Your task to perform on an android device: turn on showing notifications on the lock screen Image 0: 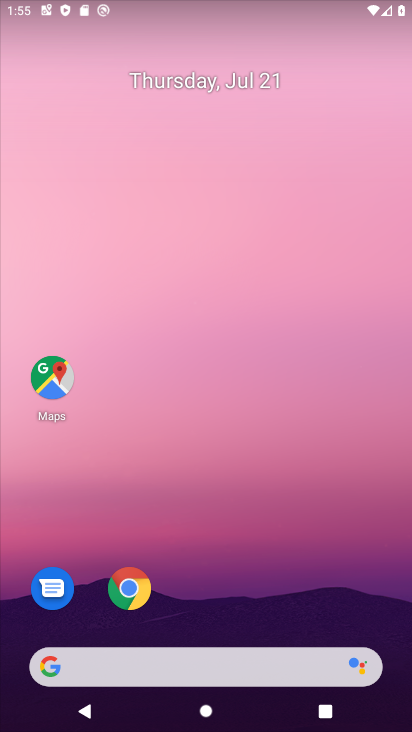
Step 0: drag from (243, 630) to (193, 109)
Your task to perform on an android device: turn on showing notifications on the lock screen Image 1: 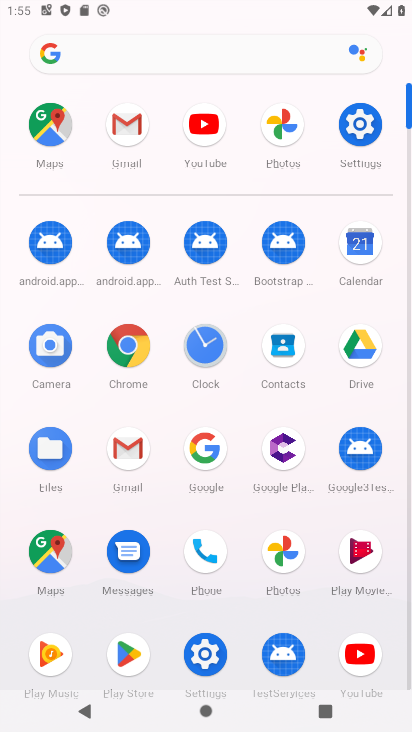
Step 1: click (360, 115)
Your task to perform on an android device: turn on showing notifications on the lock screen Image 2: 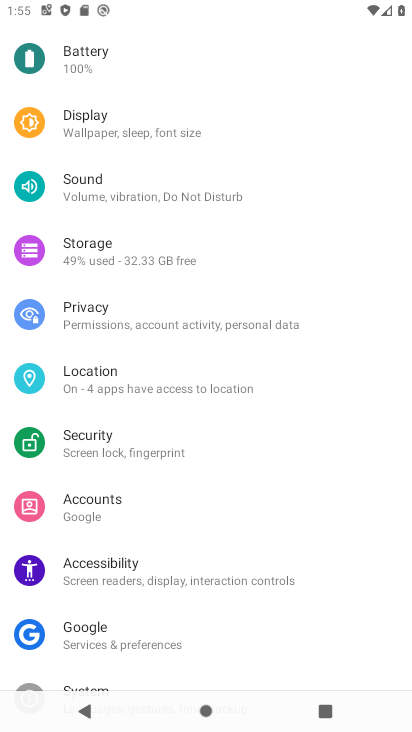
Step 2: drag from (167, 160) to (140, 655)
Your task to perform on an android device: turn on showing notifications on the lock screen Image 3: 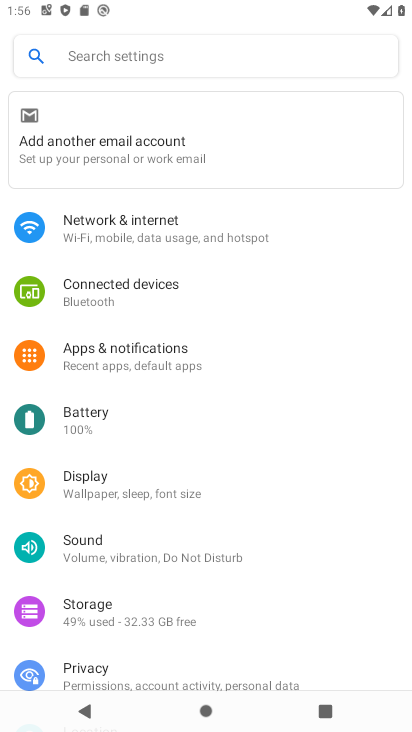
Step 3: click (115, 355)
Your task to perform on an android device: turn on showing notifications on the lock screen Image 4: 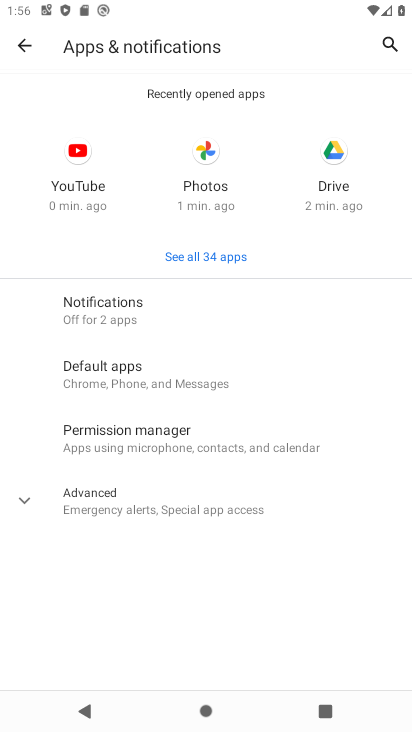
Step 4: click (109, 314)
Your task to perform on an android device: turn on showing notifications on the lock screen Image 5: 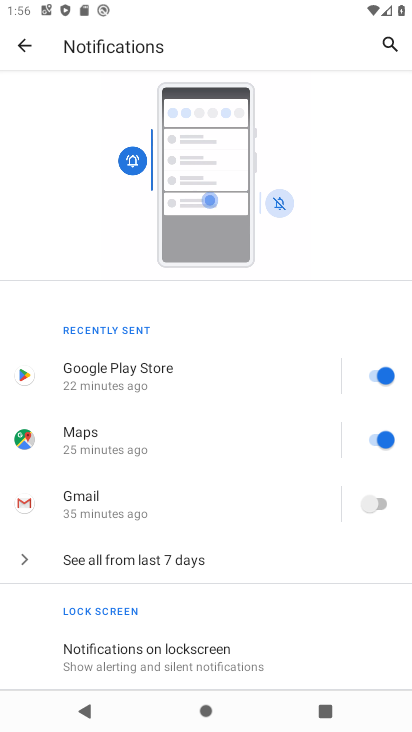
Step 5: click (214, 640)
Your task to perform on an android device: turn on showing notifications on the lock screen Image 6: 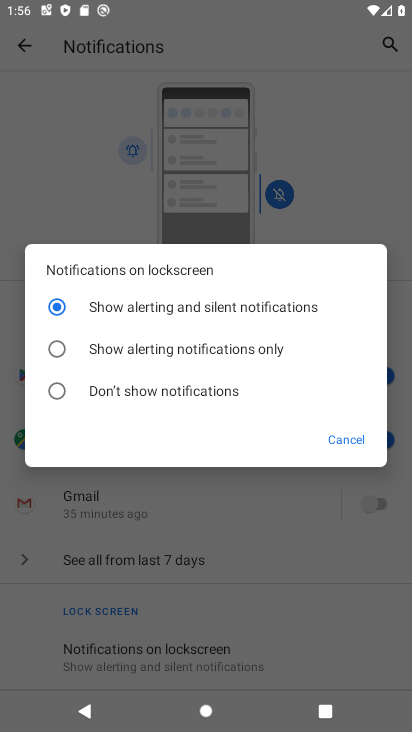
Step 6: click (55, 297)
Your task to perform on an android device: turn on showing notifications on the lock screen Image 7: 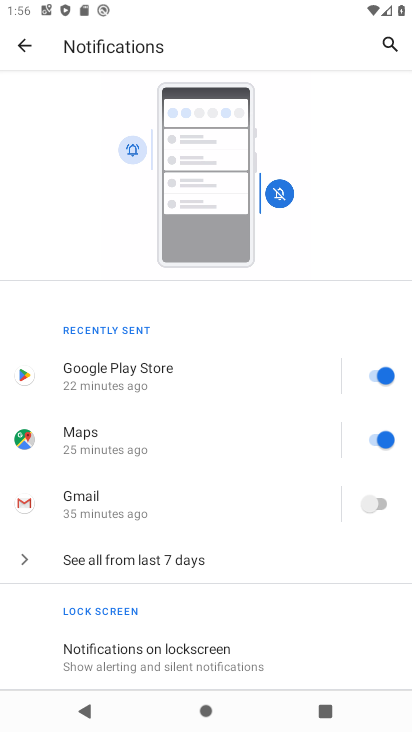
Step 7: task complete